Your task to perform on an android device: turn on wifi Image 0: 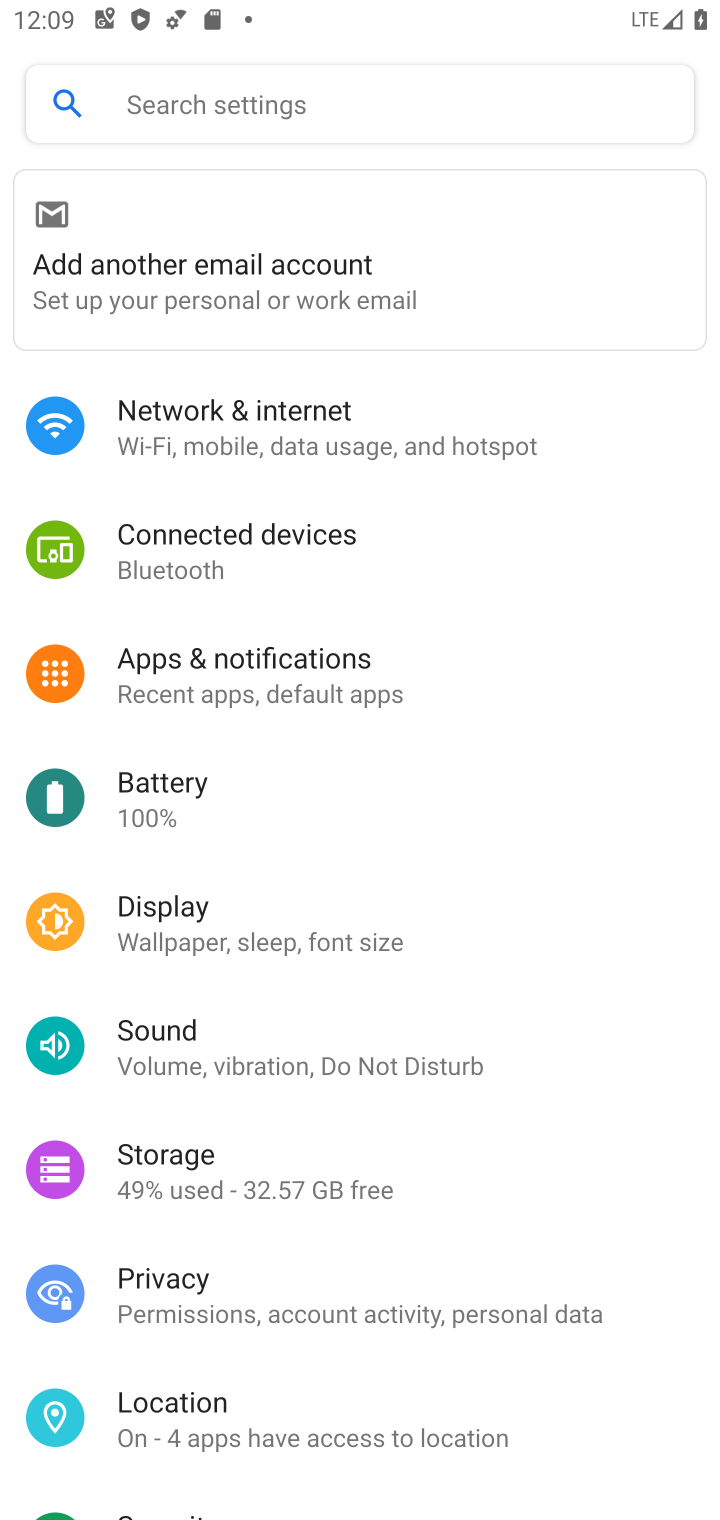
Step 0: press back button
Your task to perform on an android device: turn on wifi Image 1: 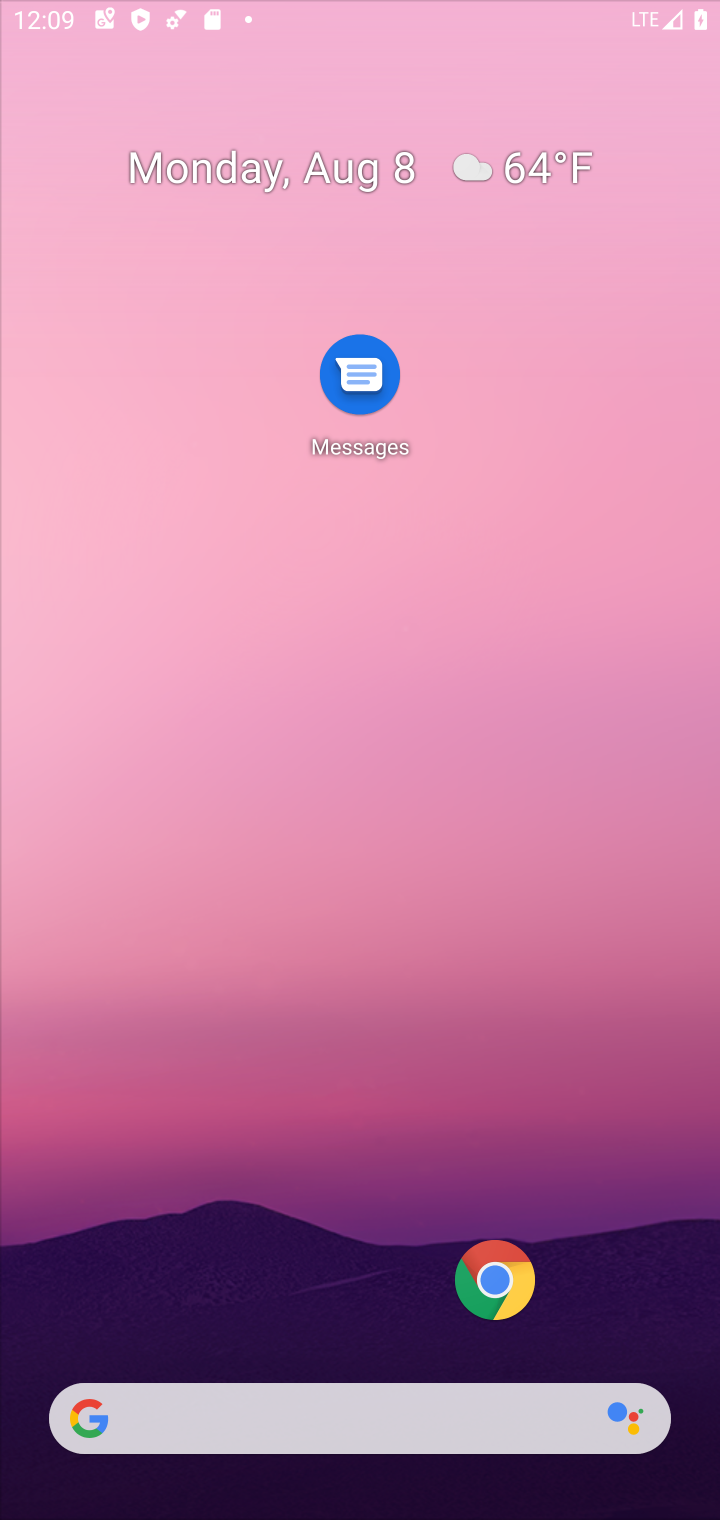
Step 1: drag from (285, 18) to (413, 1059)
Your task to perform on an android device: turn on wifi Image 2: 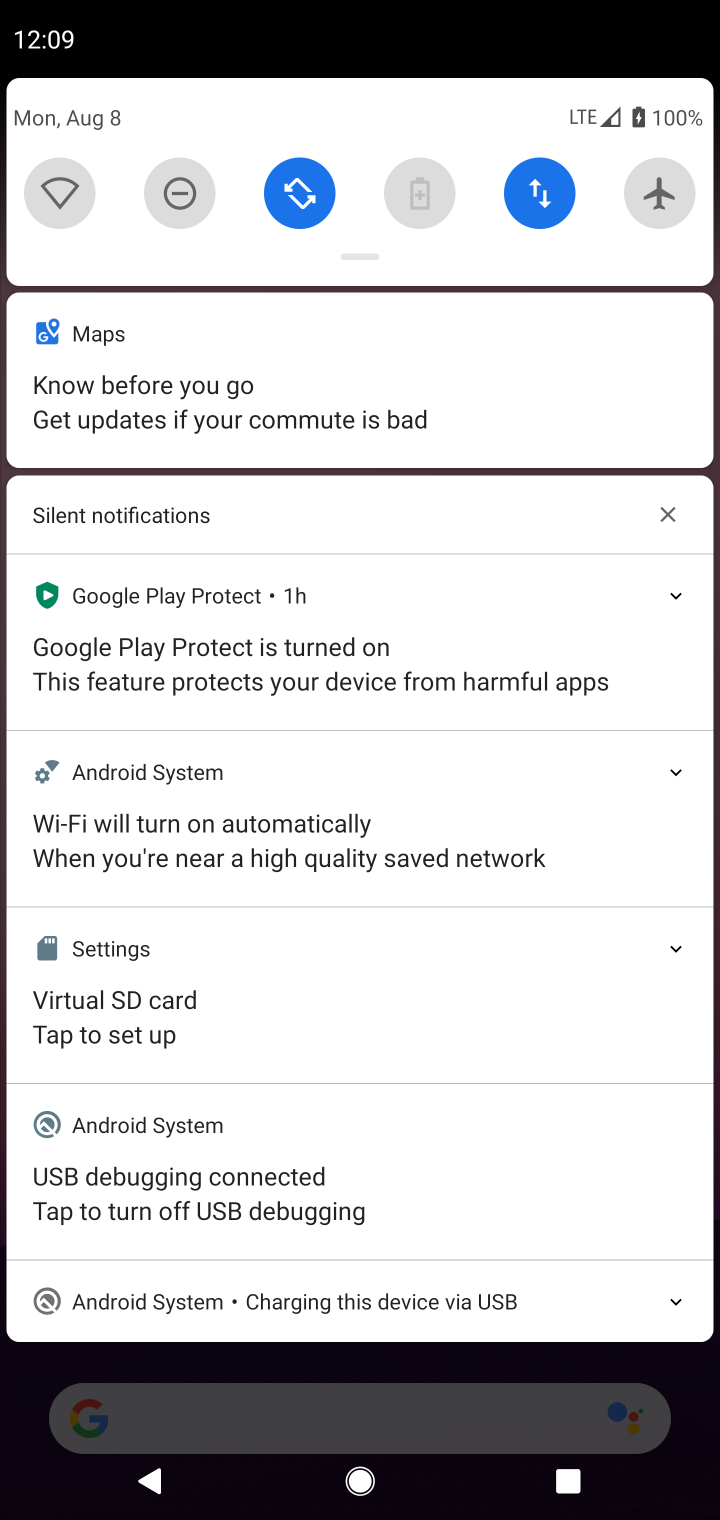
Step 2: click (67, 214)
Your task to perform on an android device: turn on wifi Image 3: 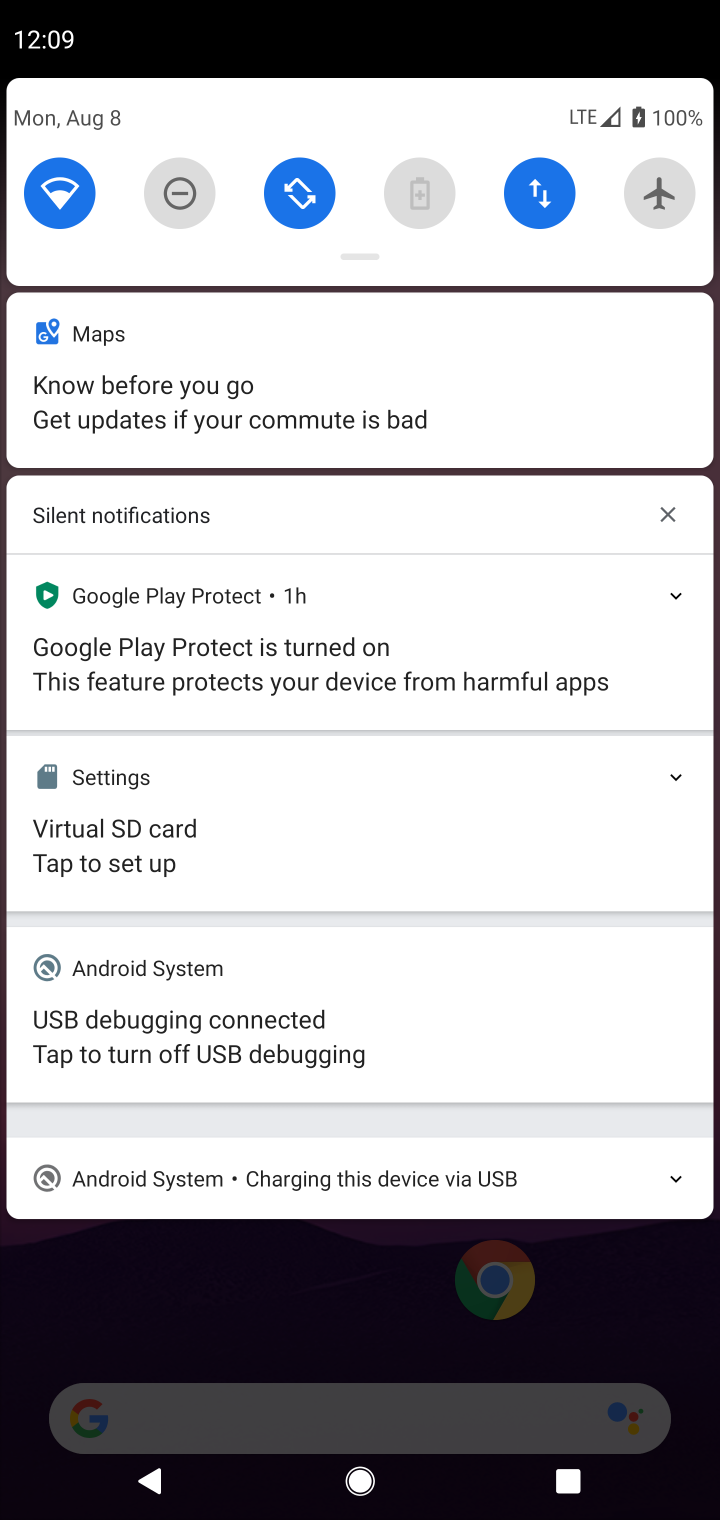
Step 3: task complete